Your task to perform on an android device: Show me recent news Image 0: 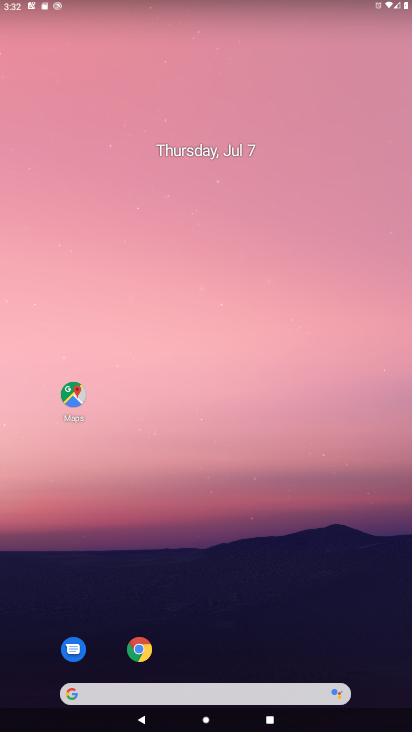
Step 0: drag from (245, 468) to (288, 0)
Your task to perform on an android device: Show me recent news Image 1: 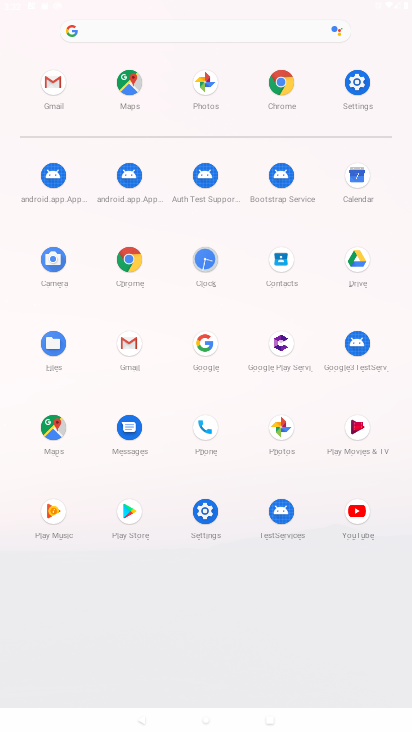
Step 1: drag from (188, 552) to (212, 154)
Your task to perform on an android device: Show me recent news Image 2: 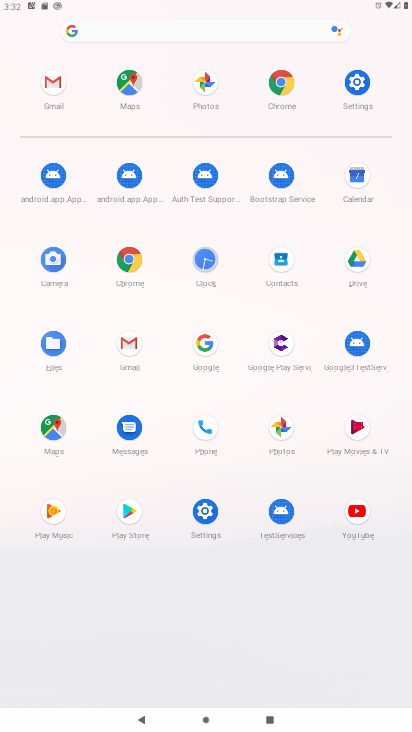
Step 2: click (117, 28)
Your task to perform on an android device: Show me recent news Image 3: 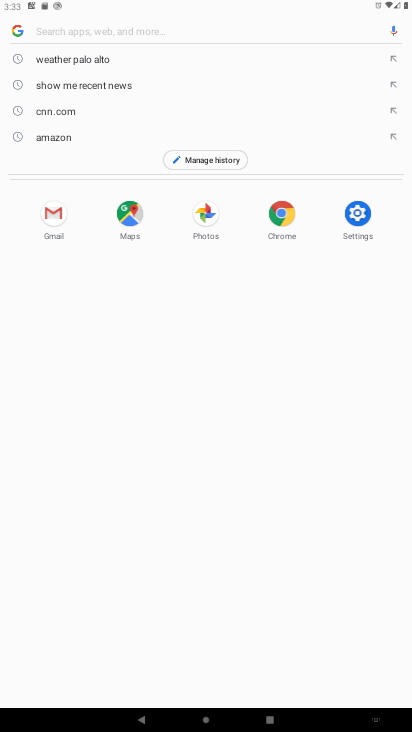
Step 3: click (77, 31)
Your task to perform on an android device: Show me recent news Image 4: 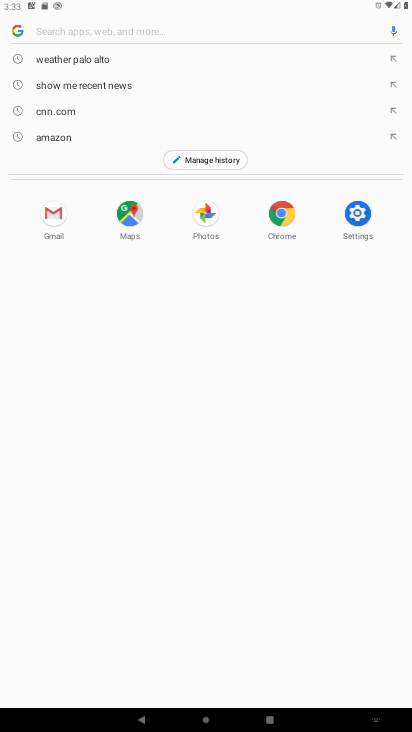
Step 4: type "recent news"
Your task to perform on an android device: Show me recent news Image 5: 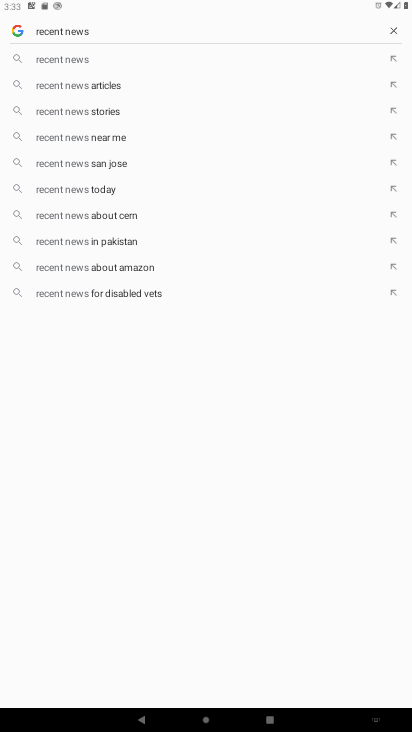
Step 5: type "s"
Your task to perform on an android device: Show me recent news Image 6: 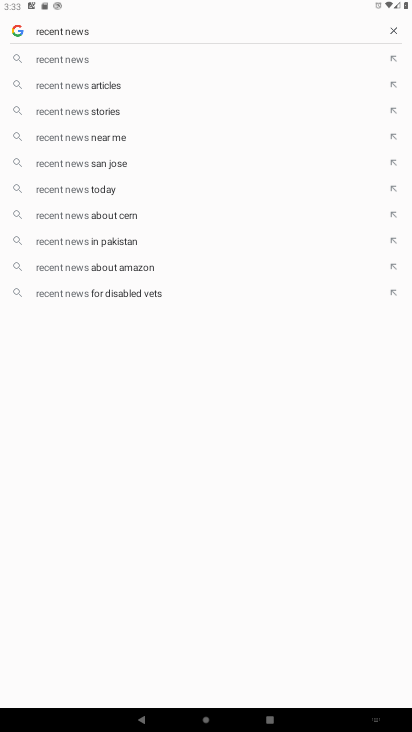
Step 6: click (64, 49)
Your task to perform on an android device: Show me recent news Image 7: 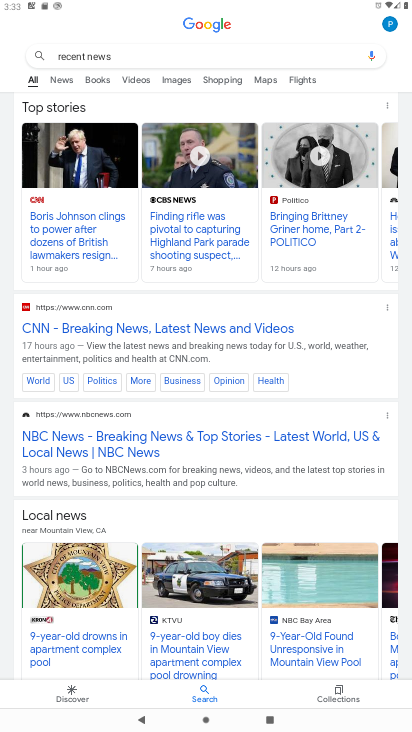
Step 7: task complete